Your task to perform on an android device: change notifications settings Image 0: 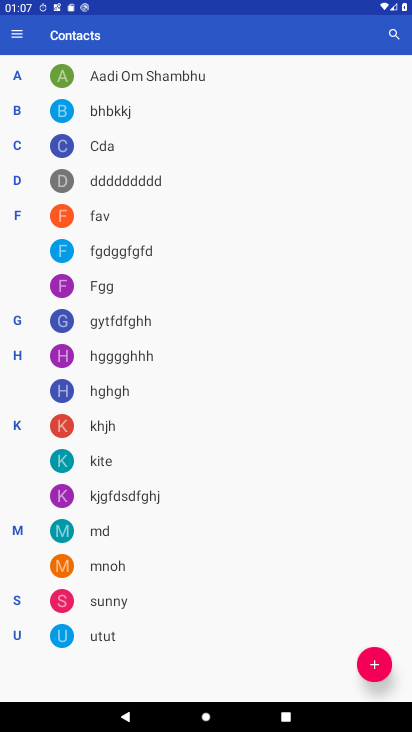
Step 0: press home button
Your task to perform on an android device: change notifications settings Image 1: 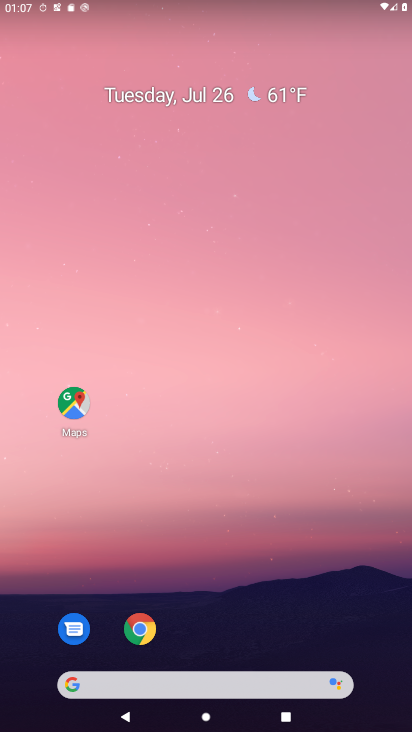
Step 1: drag from (240, 632) to (187, 196)
Your task to perform on an android device: change notifications settings Image 2: 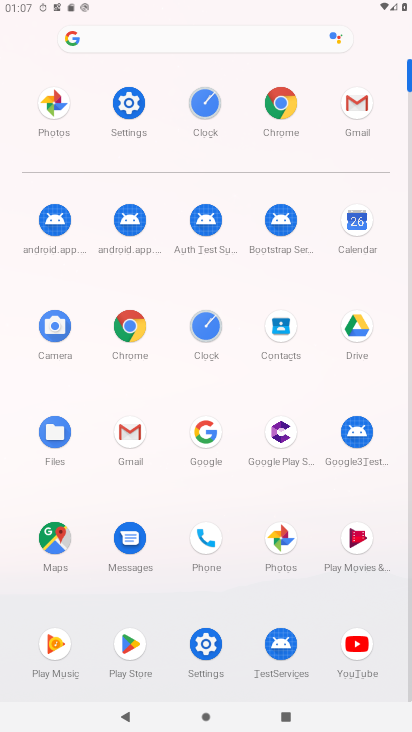
Step 2: click (132, 104)
Your task to perform on an android device: change notifications settings Image 3: 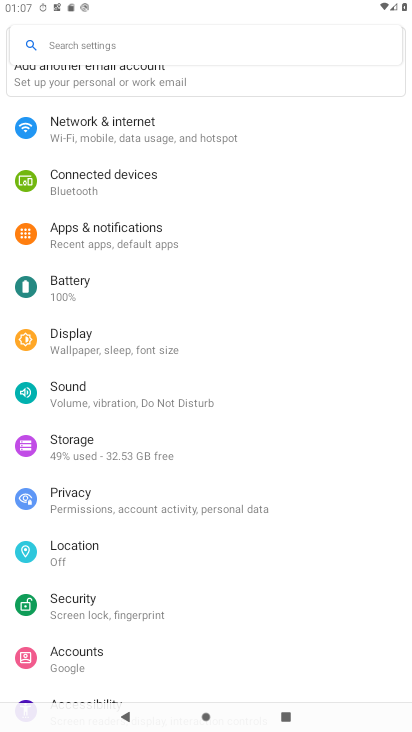
Step 3: click (156, 231)
Your task to perform on an android device: change notifications settings Image 4: 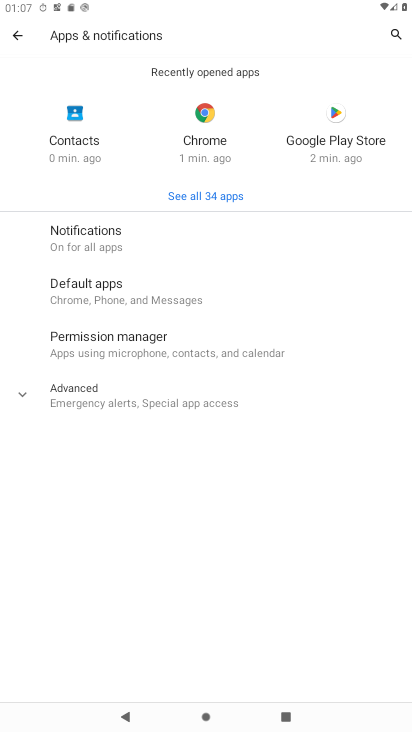
Step 4: click (156, 231)
Your task to perform on an android device: change notifications settings Image 5: 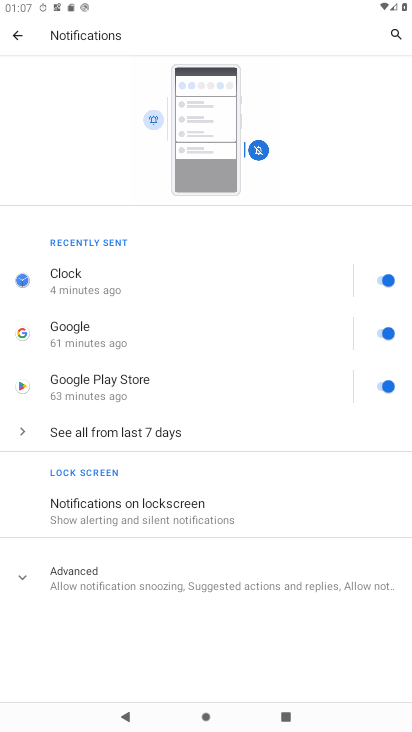
Step 5: click (242, 511)
Your task to perform on an android device: change notifications settings Image 6: 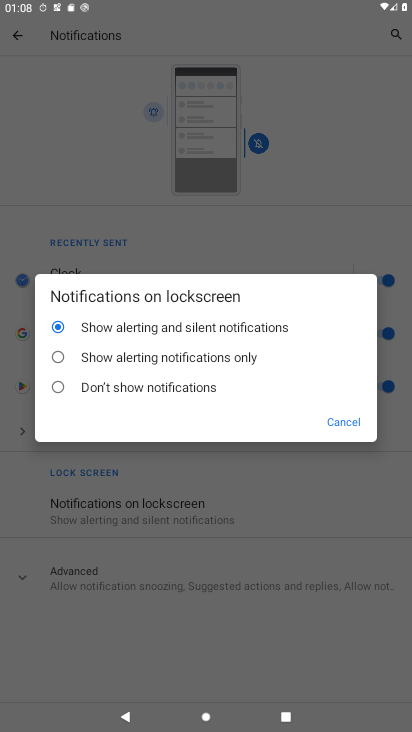
Step 6: click (188, 387)
Your task to perform on an android device: change notifications settings Image 7: 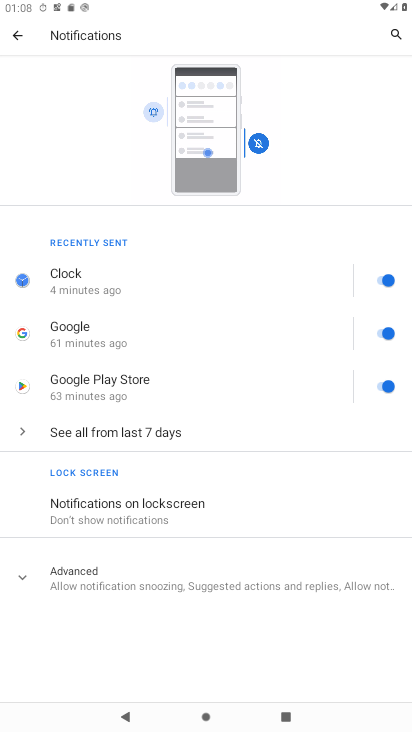
Step 7: task complete